Your task to perform on an android device: Show me recent news Image 0: 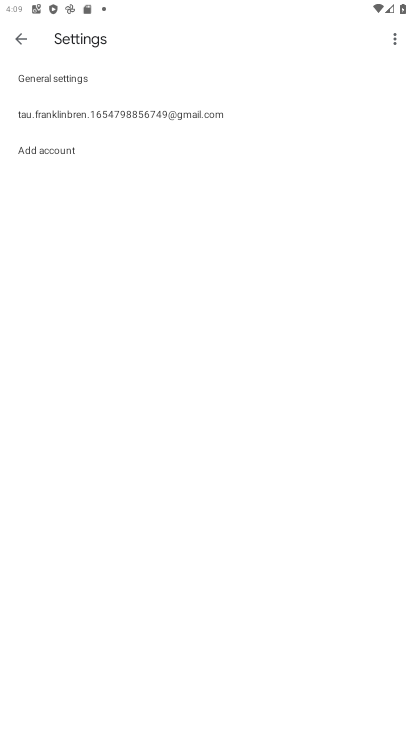
Step 0: press home button
Your task to perform on an android device: Show me recent news Image 1: 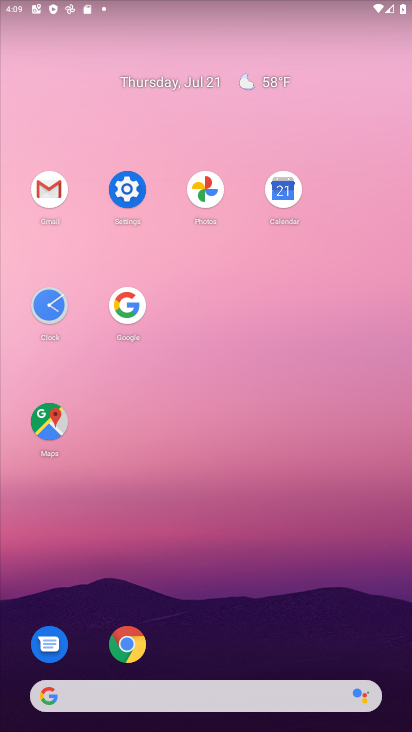
Step 1: click (136, 303)
Your task to perform on an android device: Show me recent news Image 2: 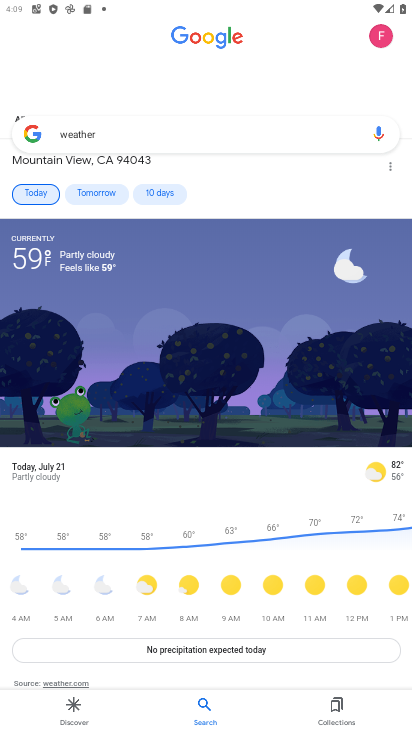
Step 2: click (137, 116)
Your task to perform on an android device: Show me recent news Image 3: 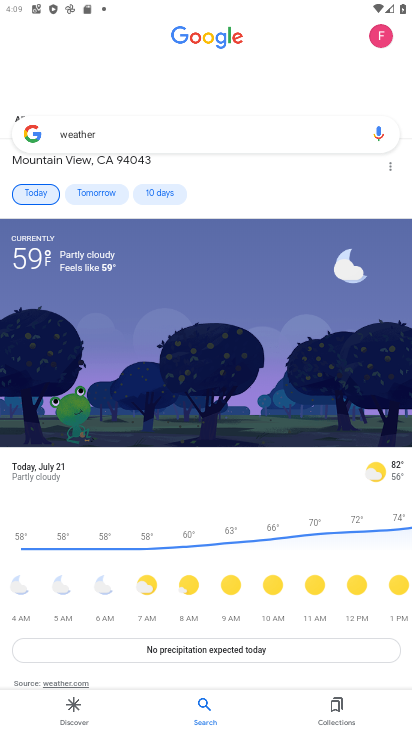
Step 3: click (331, 137)
Your task to perform on an android device: Show me recent news Image 4: 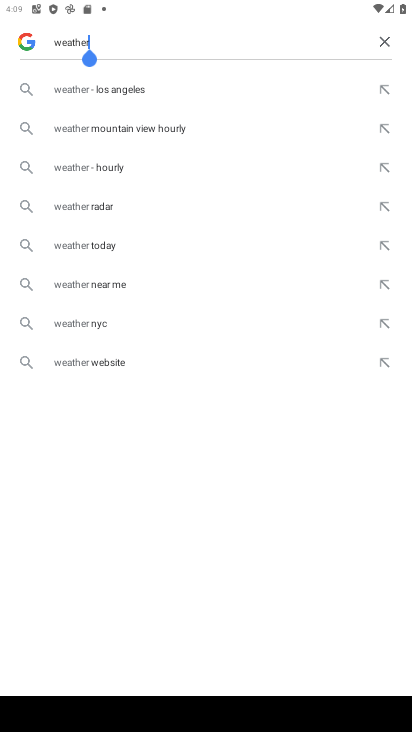
Step 4: click (378, 37)
Your task to perform on an android device: Show me recent news Image 5: 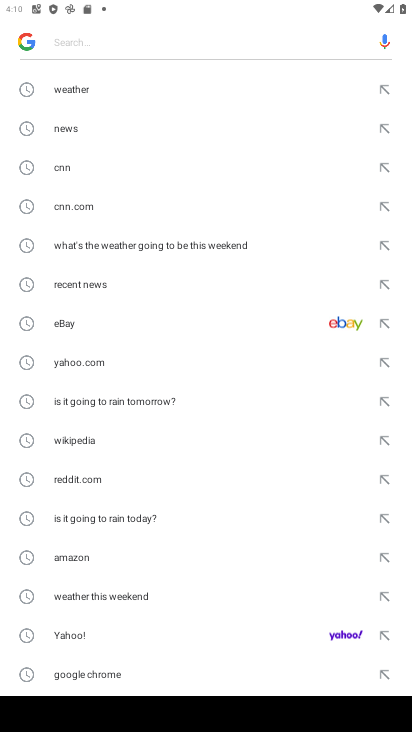
Step 5: click (98, 285)
Your task to perform on an android device: Show me recent news Image 6: 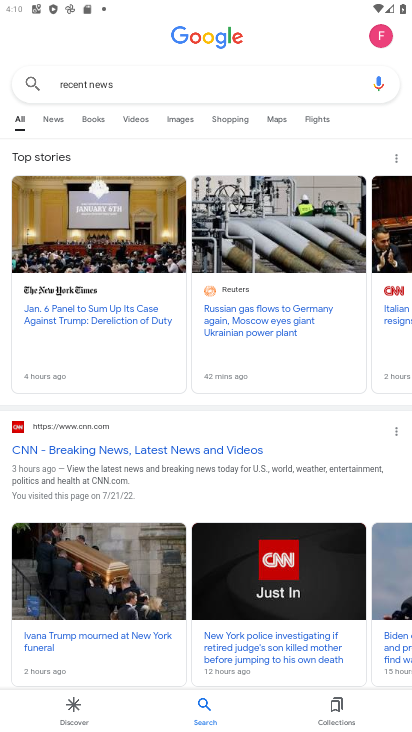
Step 6: task complete